Your task to perform on an android device: Open Google Image 0: 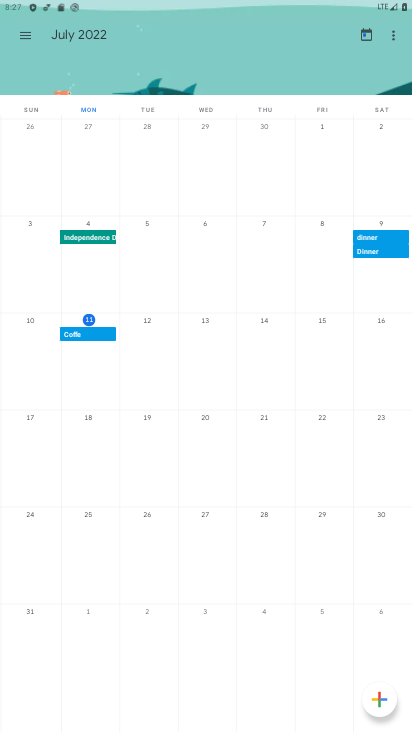
Step 0: press home button
Your task to perform on an android device: Open Google Image 1: 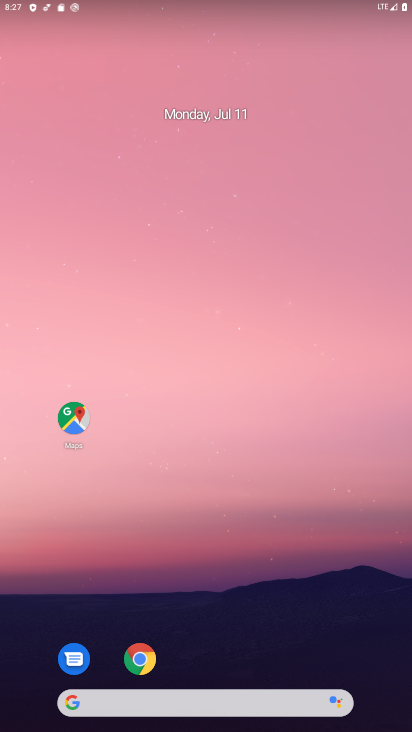
Step 1: click (66, 706)
Your task to perform on an android device: Open Google Image 2: 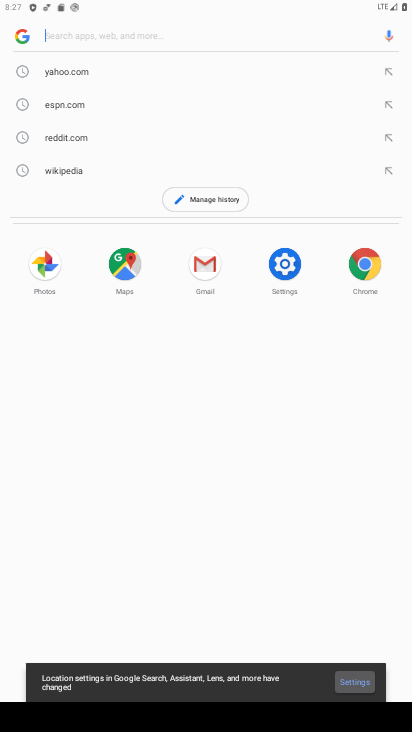
Step 2: click (22, 27)
Your task to perform on an android device: Open Google Image 3: 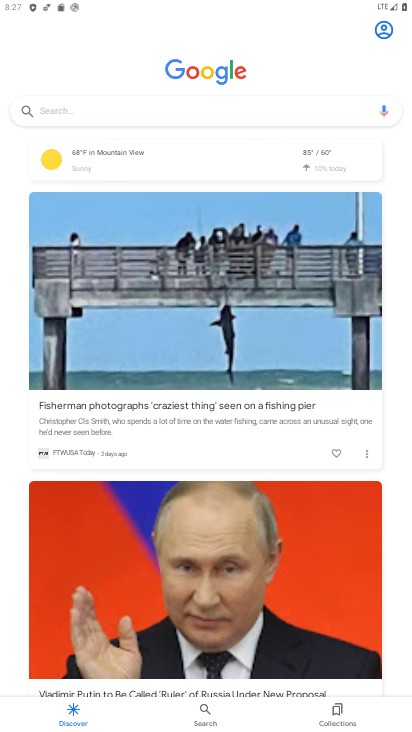
Step 3: task complete